Your task to perform on an android device: empty trash in the gmail app Image 0: 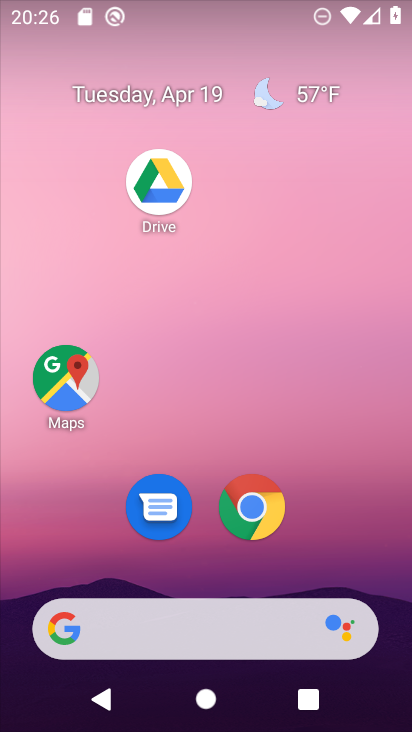
Step 0: drag from (361, 451) to (321, 102)
Your task to perform on an android device: empty trash in the gmail app Image 1: 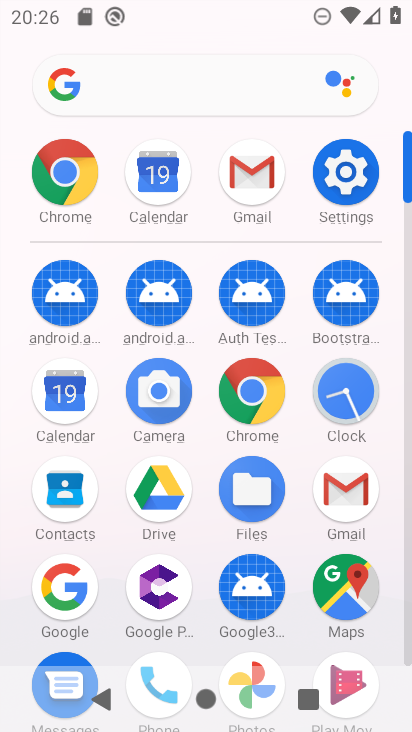
Step 1: click (268, 173)
Your task to perform on an android device: empty trash in the gmail app Image 2: 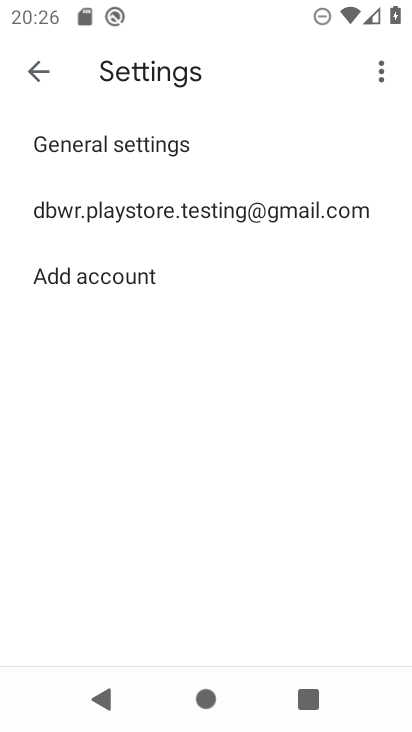
Step 2: click (37, 69)
Your task to perform on an android device: empty trash in the gmail app Image 3: 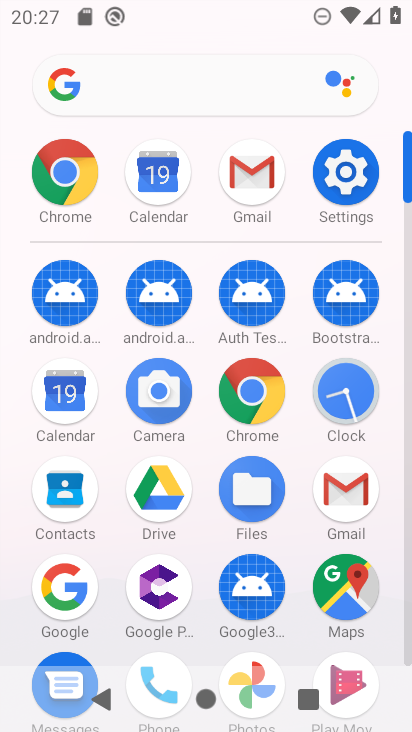
Step 3: click (253, 179)
Your task to perform on an android device: empty trash in the gmail app Image 4: 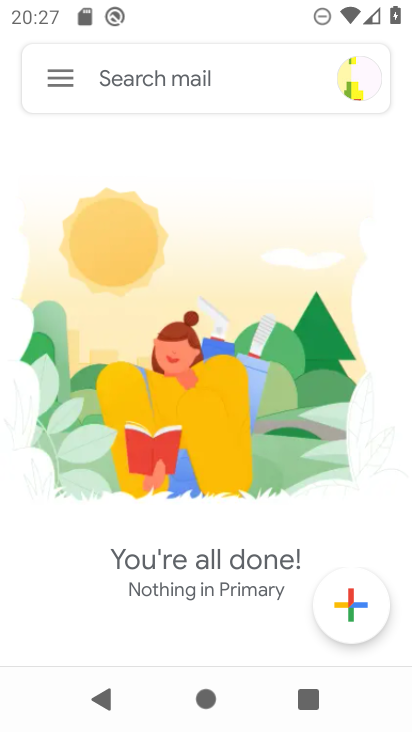
Step 4: click (61, 74)
Your task to perform on an android device: empty trash in the gmail app Image 5: 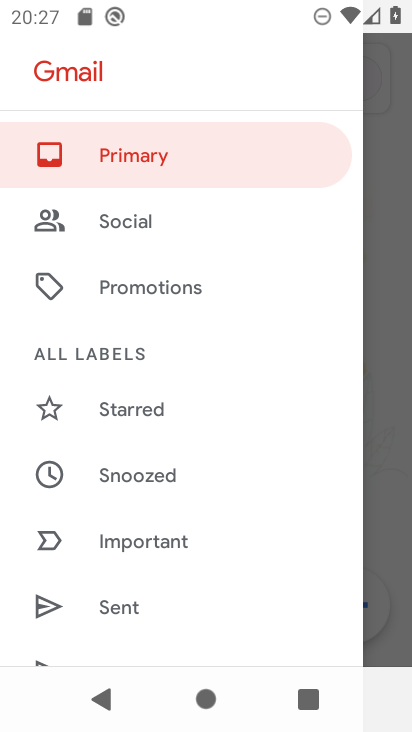
Step 5: drag from (218, 542) to (225, 137)
Your task to perform on an android device: empty trash in the gmail app Image 6: 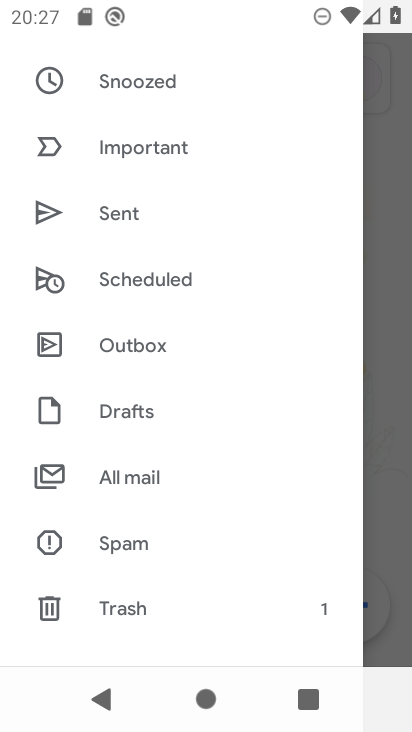
Step 6: click (165, 616)
Your task to perform on an android device: empty trash in the gmail app Image 7: 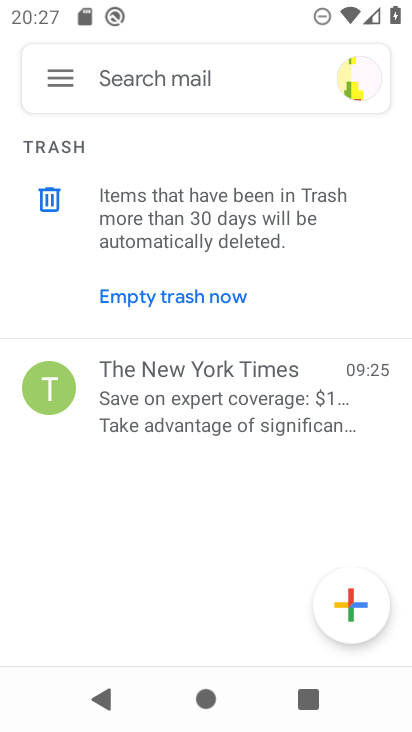
Step 7: click (136, 287)
Your task to perform on an android device: empty trash in the gmail app Image 8: 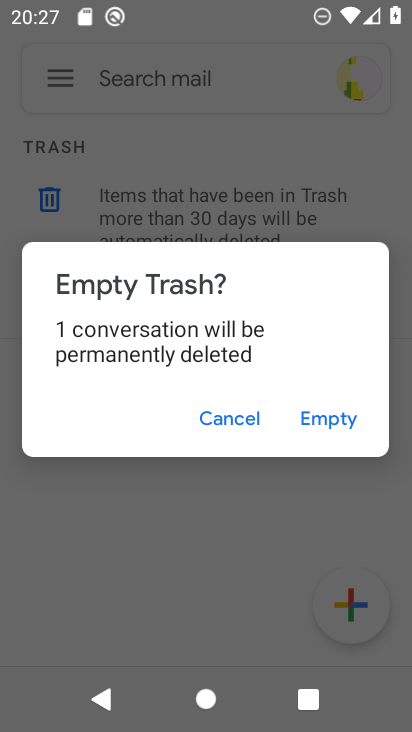
Step 8: click (336, 410)
Your task to perform on an android device: empty trash in the gmail app Image 9: 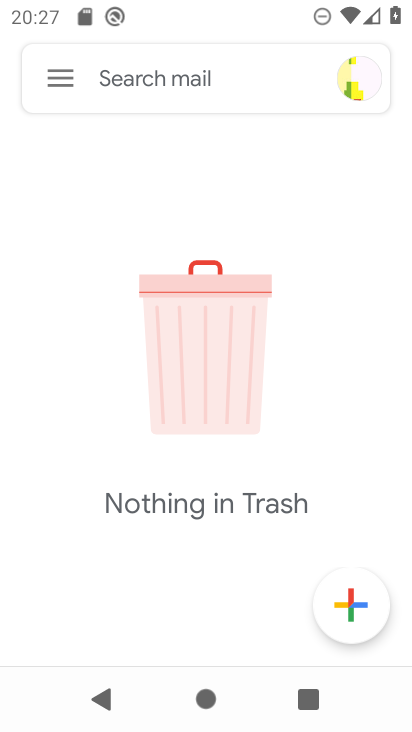
Step 9: task complete